Your task to perform on an android device: turn on javascript in the chrome app Image 0: 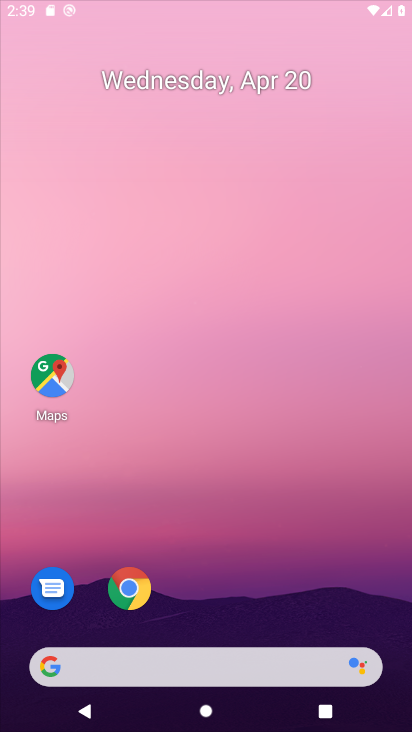
Step 0: drag from (319, 604) to (304, 99)
Your task to perform on an android device: turn on javascript in the chrome app Image 1: 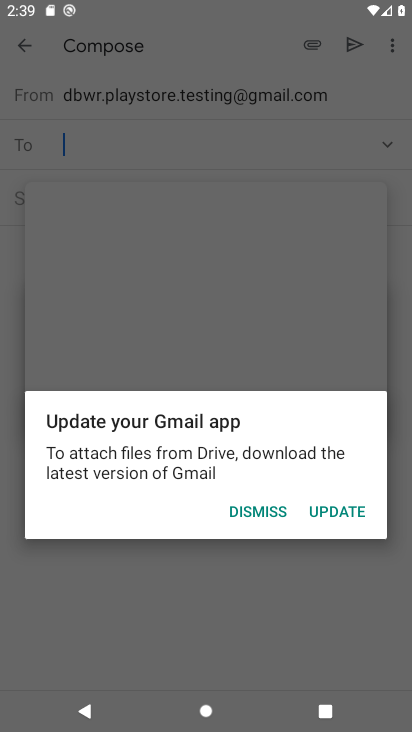
Step 1: press home button
Your task to perform on an android device: turn on javascript in the chrome app Image 2: 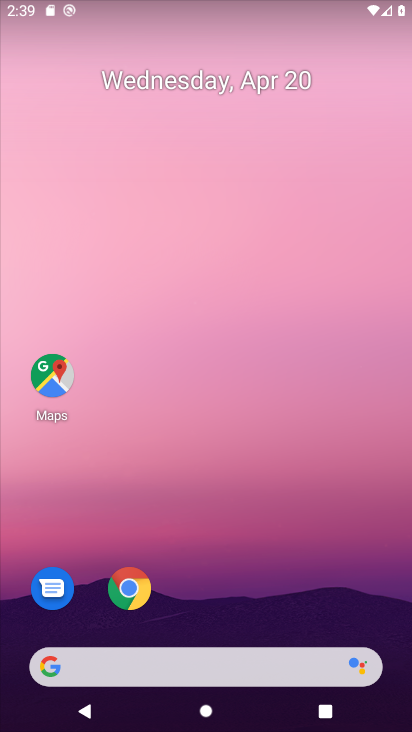
Step 2: drag from (321, 586) to (330, 75)
Your task to perform on an android device: turn on javascript in the chrome app Image 3: 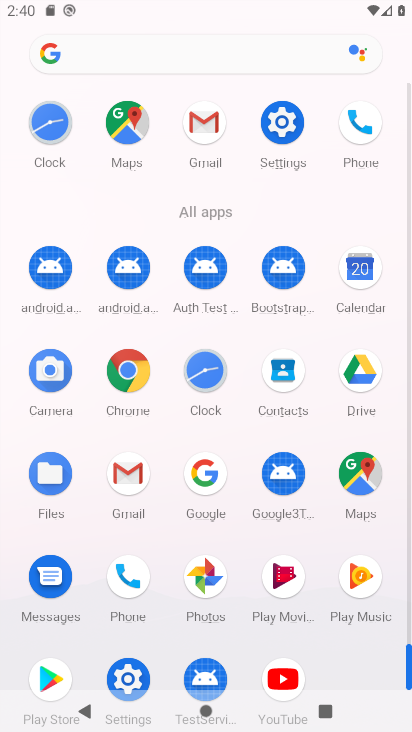
Step 3: click (137, 370)
Your task to perform on an android device: turn on javascript in the chrome app Image 4: 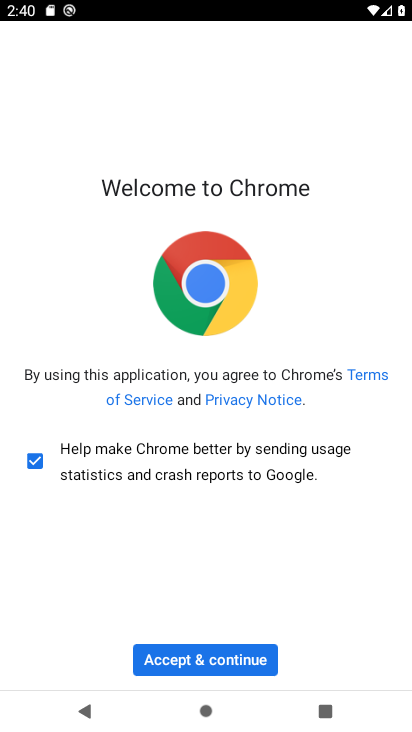
Step 4: click (195, 659)
Your task to perform on an android device: turn on javascript in the chrome app Image 5: 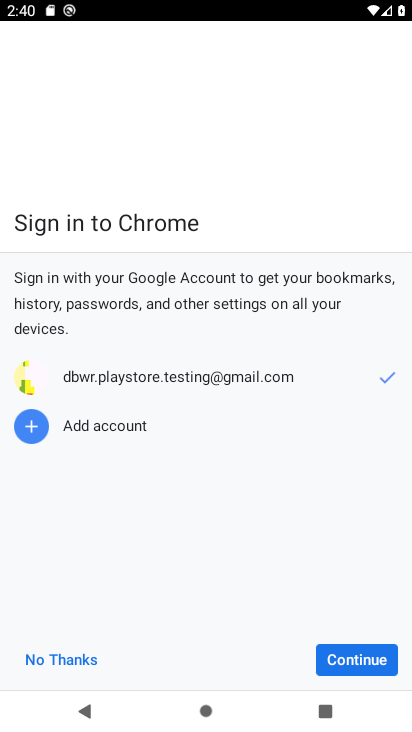
Step 5: click (324, 663)
Your task to perform on an android device: turn on javascript in the chrome app Image 6: 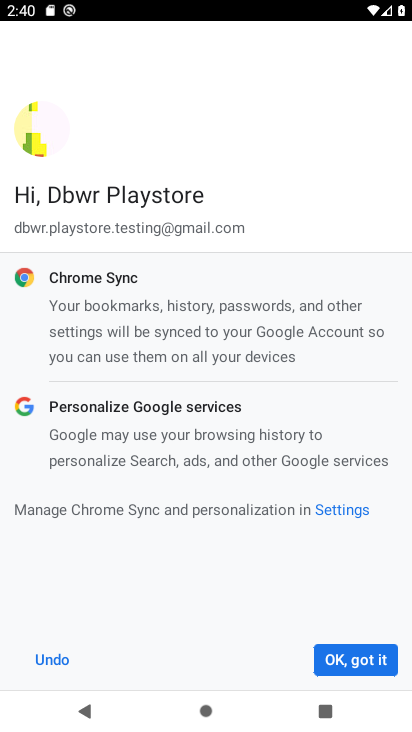
Step 6: click (324, 663)
Your task to perform on an android device: turn on javascript in the chrome app Image 7: 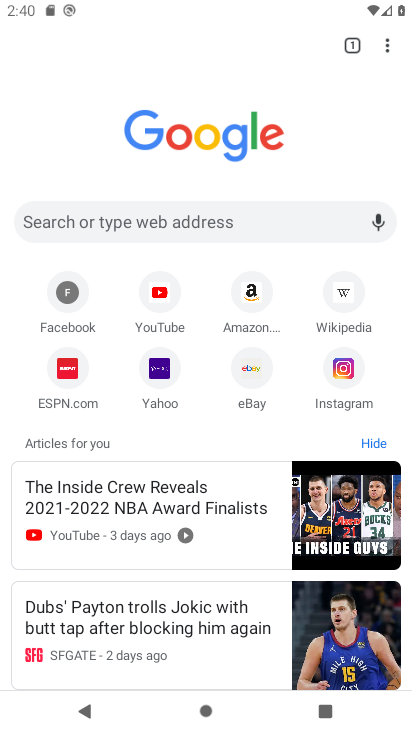
Step 7: click (387, 48)
Your task to perform on an android device: turn on javascript in the chrome app Image 8: 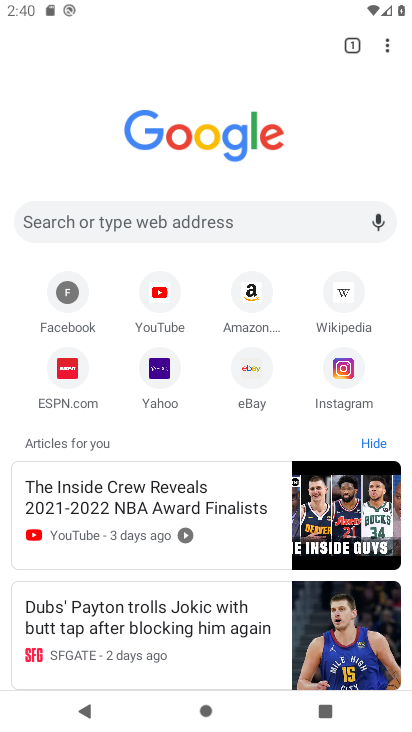
Step 8: click (388, 42)
Your task to perform on an android device: turn on javascript in the chrome app Image 9: 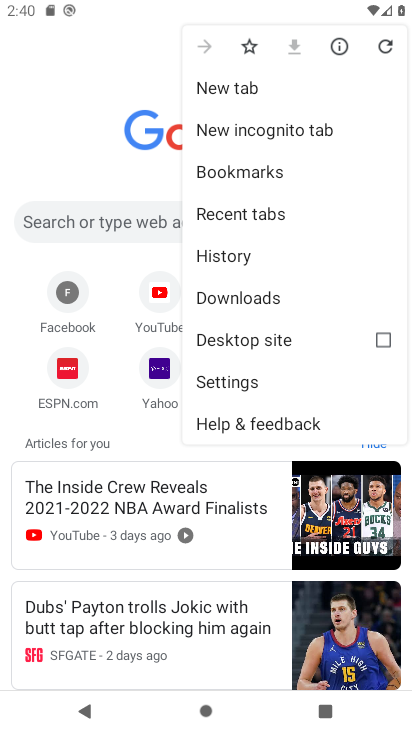
Step 9: click (258, 382)
Your task to perform on an android device: turn on javascript in the chrome app Image 10: 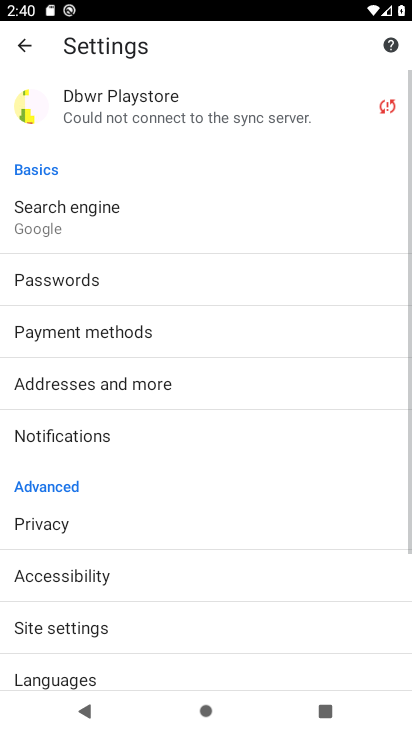
Step 10: drag from (279, 541) to (283, 394)
Your task to perform on an android device: turn on javascript in the chrome app Image 11: 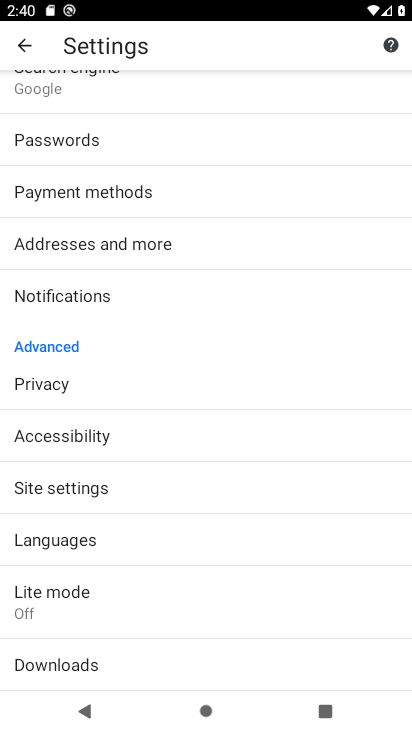
Step 11: drag from (266, 560) to (289, 415)
Your task to perform on an android device: turn on javascript in the chrome app Image 12: 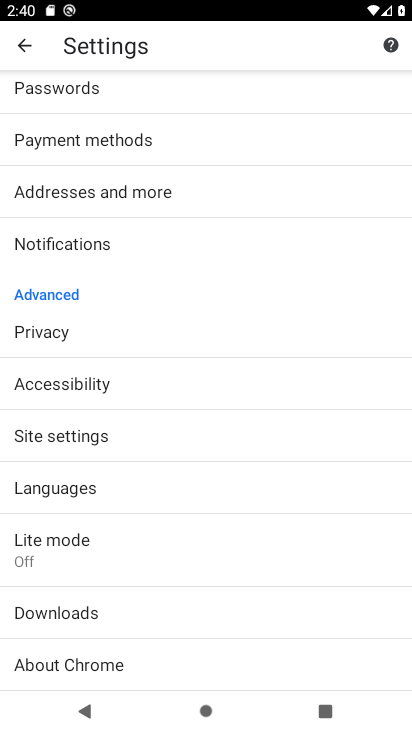
Step 12: click (250, 422)
Your task to perform on an android device: turn on javascript in the chrome app Image 13: 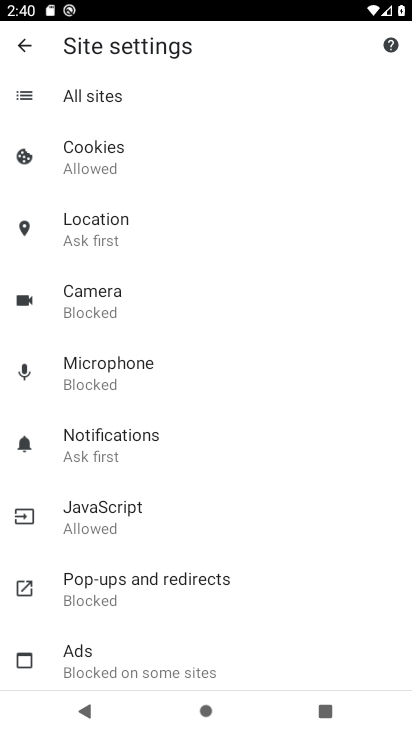
Step 13: drag from (301, 589) to (296, 472)
Your task to perform on an android device: turn on javascript in the chrome app Image 14: 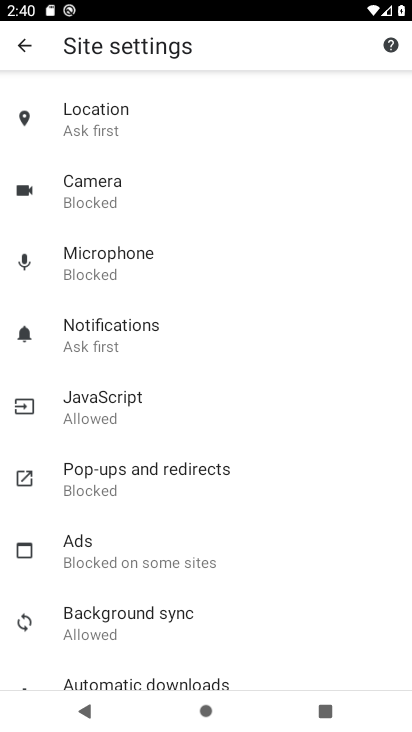
Step 14: drag from (289, 572) to (307, 389)
Your task to perform on an android device: turn on javascript in the chrome app Image 15: 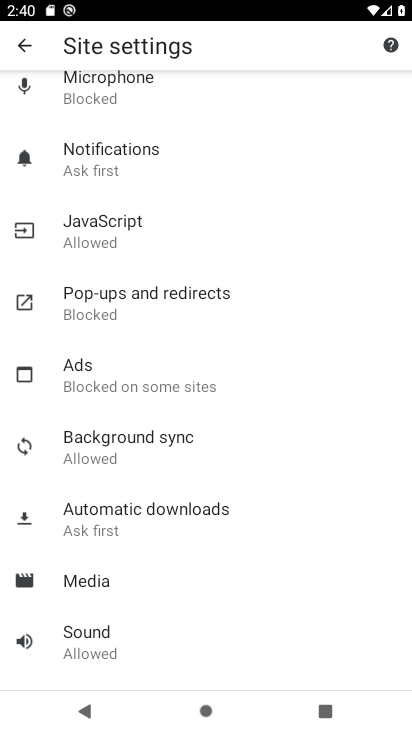
Step 15: click (113, 226)
Your task to perform on an android device: turn on javascript in the chrome app Image 16: 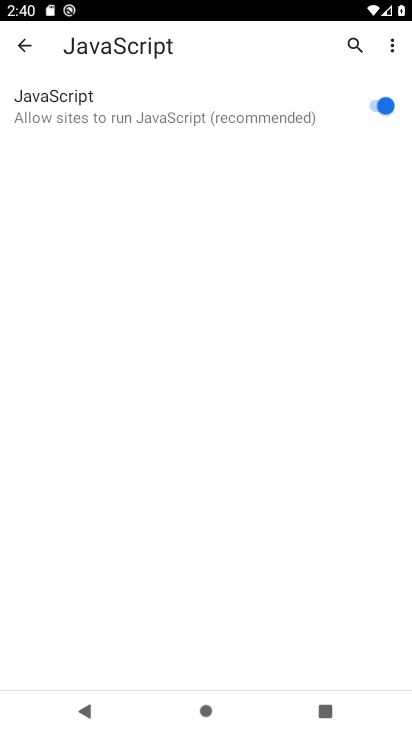
Step 16: task complete